Your task to perform on an android device: Open battery settings Image 0: 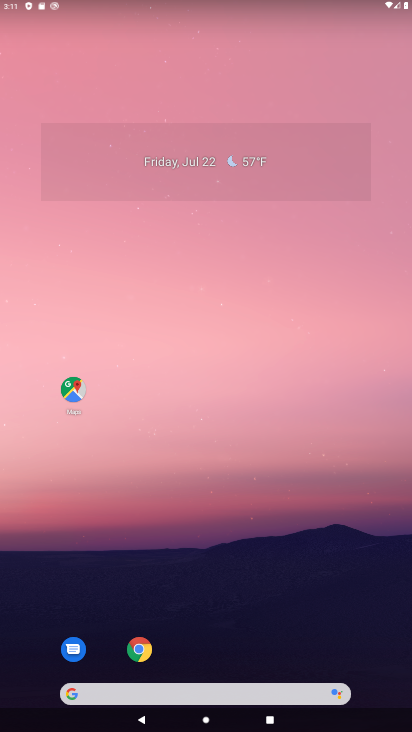
Step 0: drag from (53, 665) to (275, 211)
Your task to perform on an android device: Open battery settings Image 1: 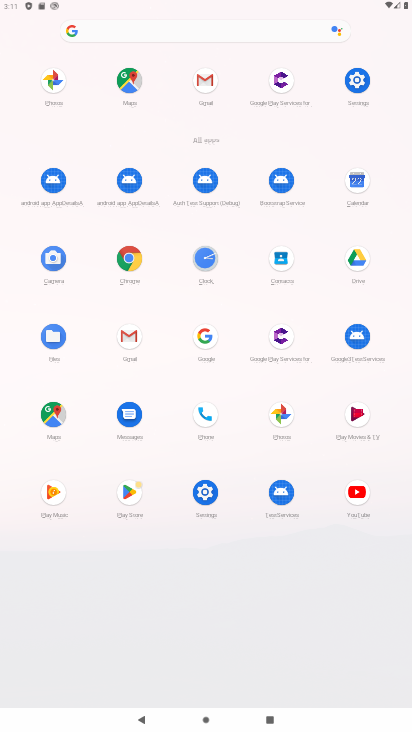
Step 1: click (205, 480)
Your task to perform on an android device: Open battery settings Image 2: 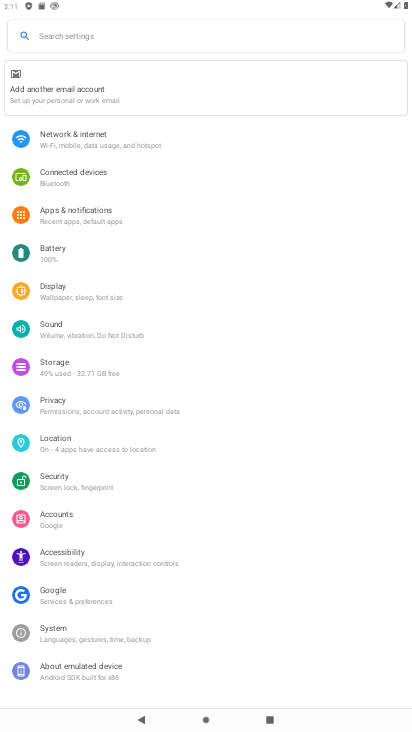
Step 2: click (78, 248)
Your task to perform on an android device: Open battery settings Image 3: 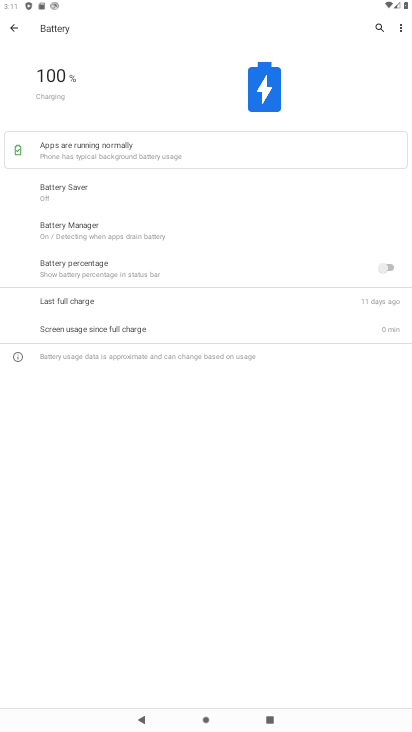
Step 3: task complete